Your task to perform on an android device: add a contact Image 0: 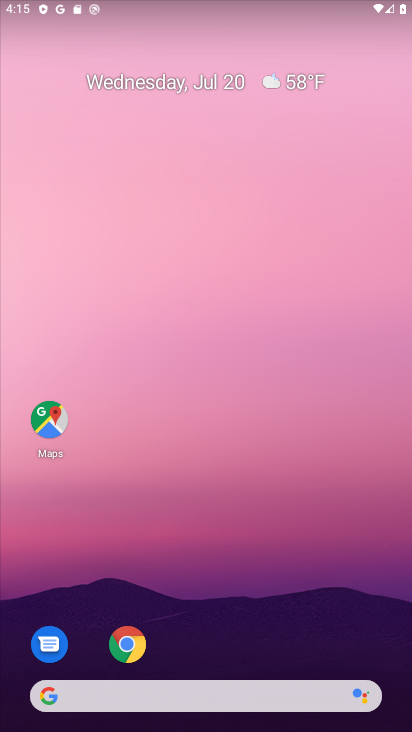
Step 0: press home button
Your task to perform on an android device: add a contact Image 1: 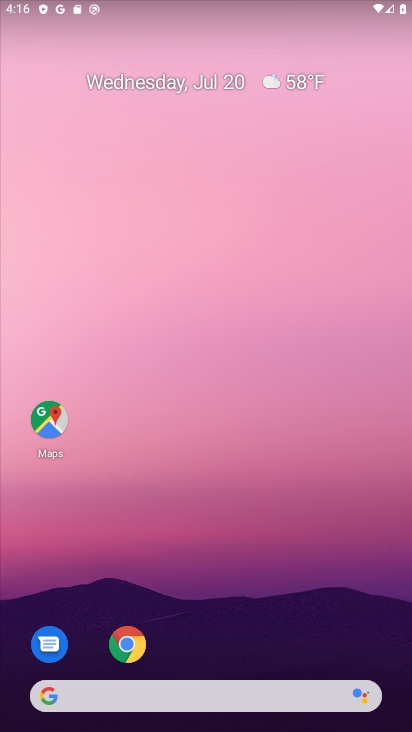
Step 1: drag from (283, 601) to (259, 37)
Your task to perform on an android device: add a contact Image 2: 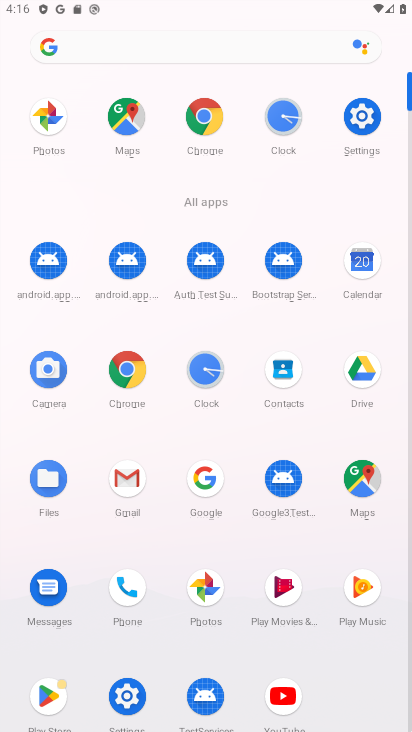
Step 2: click (273, 363)
Your task to perform on an android device: add a contact Image 3: 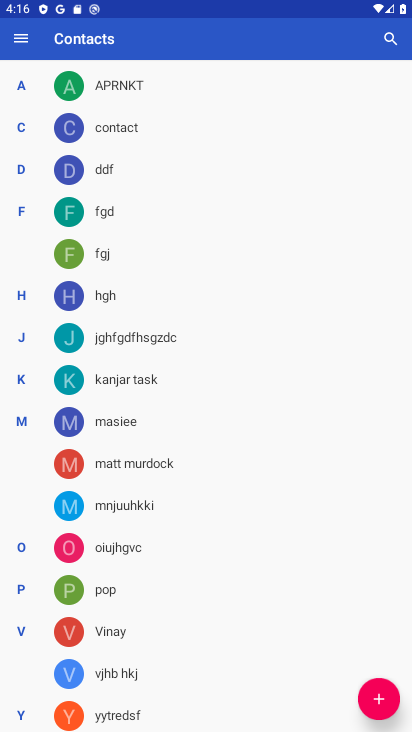
Step 3: click (377, 696)
Your task to perform on an android device: add a contact Image 4: 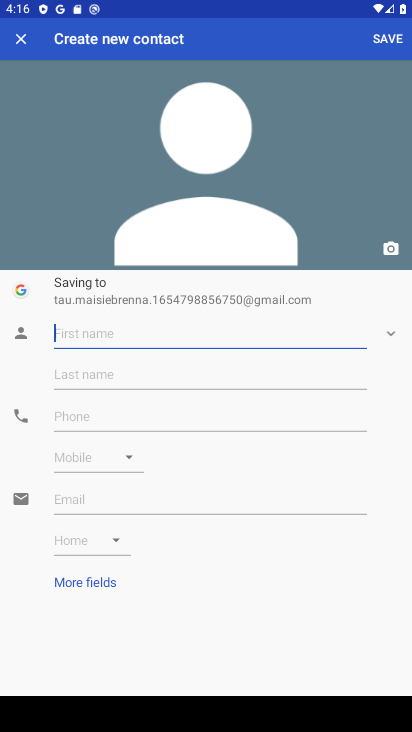
Step 4: click (111, 335)
Your task to perform on an android device: add a contact Image 5: 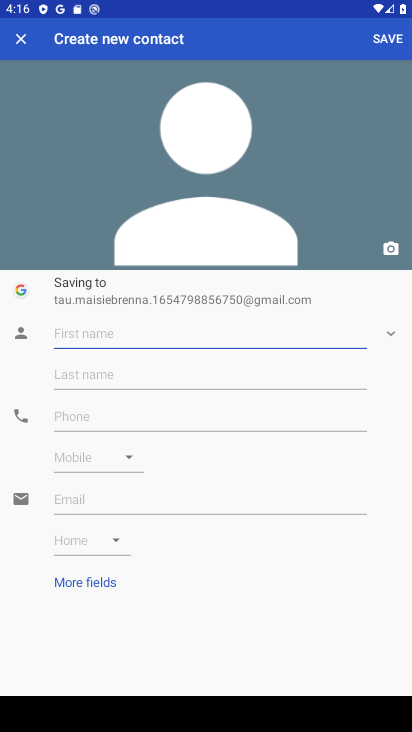
Step 5: type "sfffssssssfggg"
Your task to perform on an android device: add a contact Image 6: 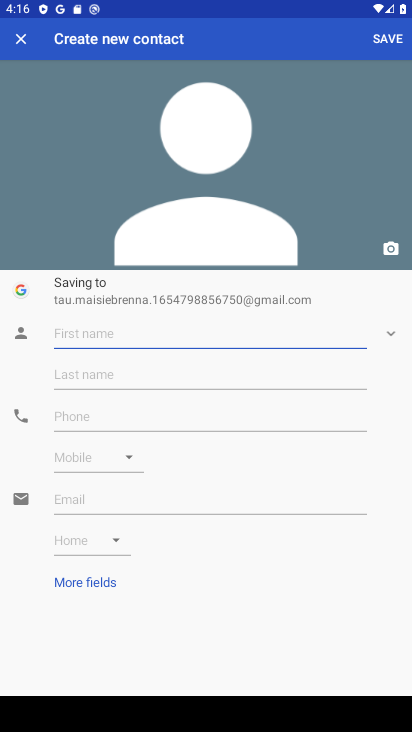
Step 6: click (95, 331)
Your task to perform on an android device: add a contact Image 7: 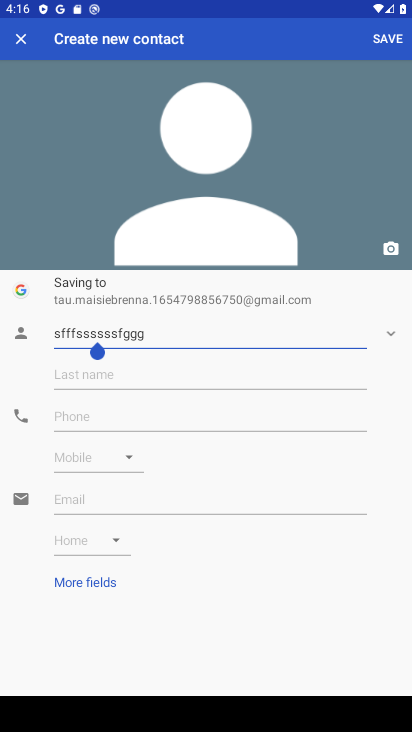
Step 7: click (81, 411)
Your task to perform on an android device: add a contact Image 8: 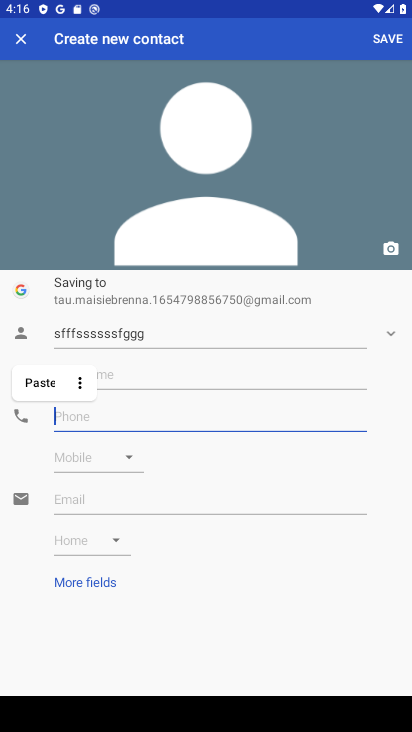
Step 8: type "442422444333"
Your task to perform on an android device: add a contact Image 9: 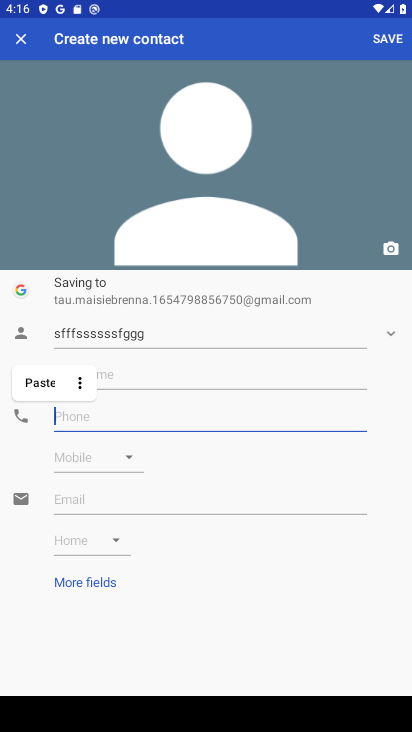
Step 9: click (71, 414)
Your task to perform on an android device: add a contact Image 10: 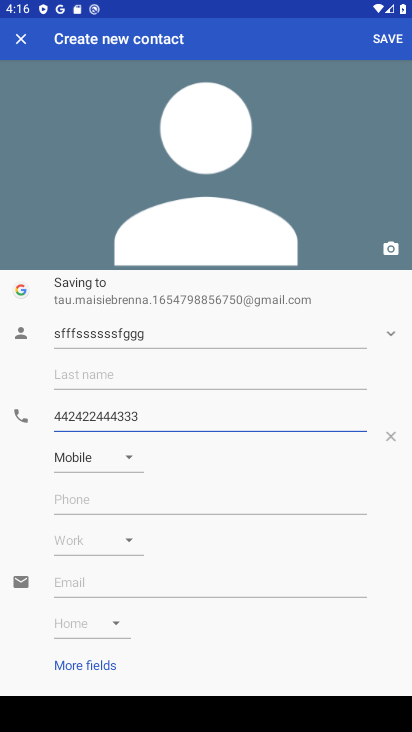
Step 10: click (402, 39)
Your task to perform on an android device: add a contact Image 11: 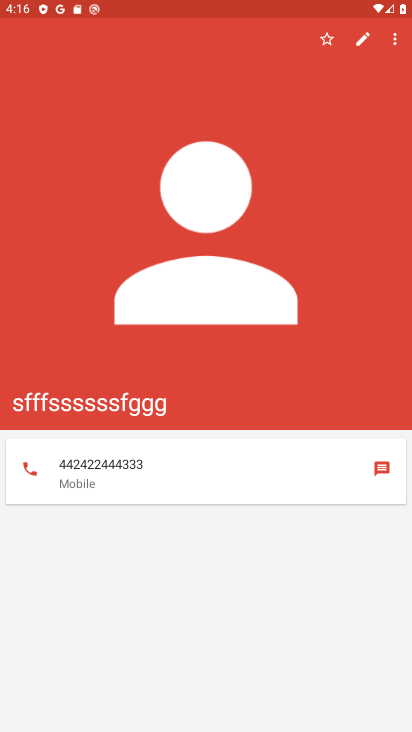
Step 11: task complete